Your task to perform on an android device: turn pop-ups off in chrome Image 0: 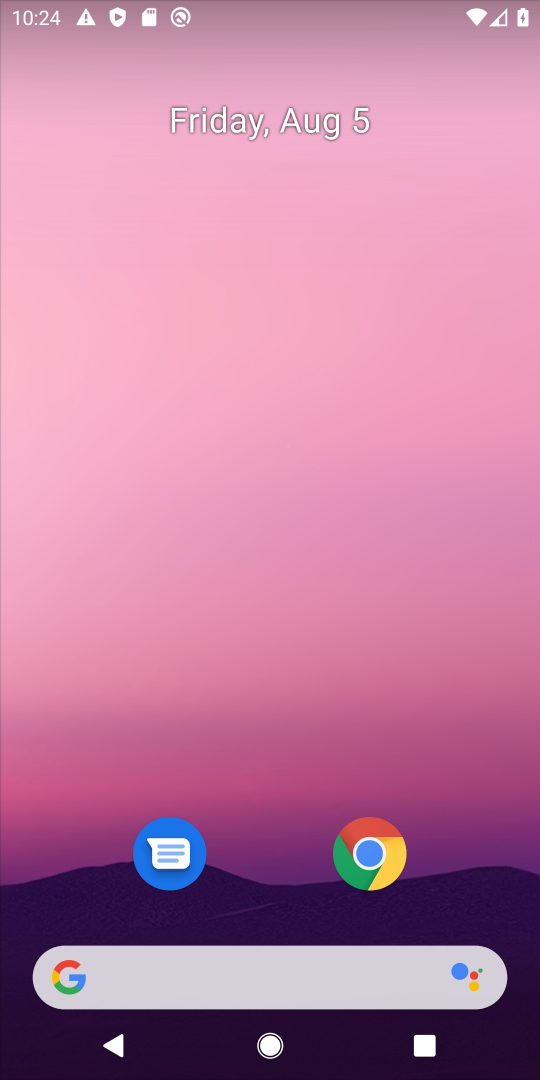
Step 0: click (370, 851)
Your task to perform on an android device: turn pop-ups off in chrome Image 1: 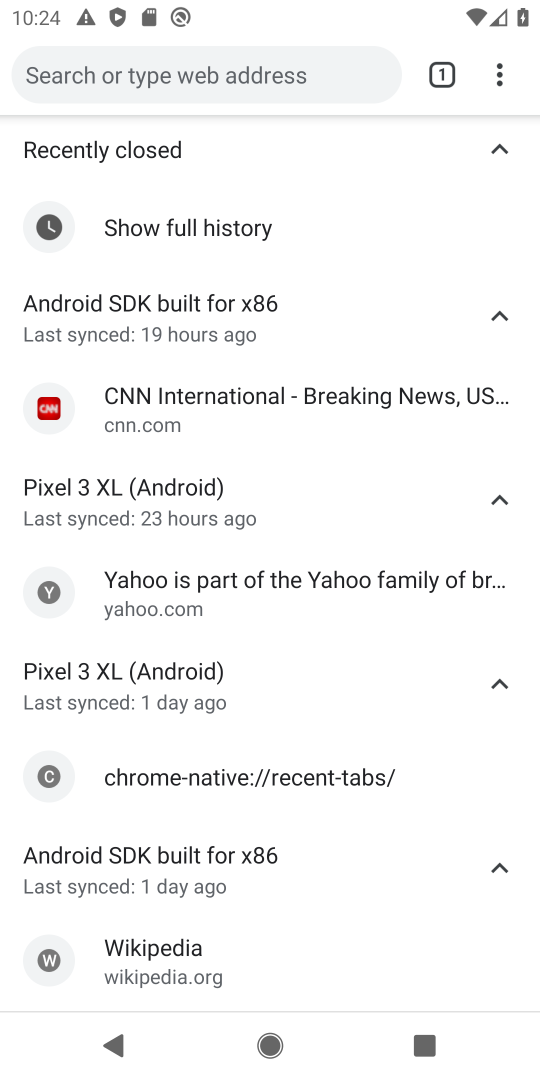
Step 1: click (498, 74)
Your task to perform on an android device: turn pop-ups off in chrome Image 2: 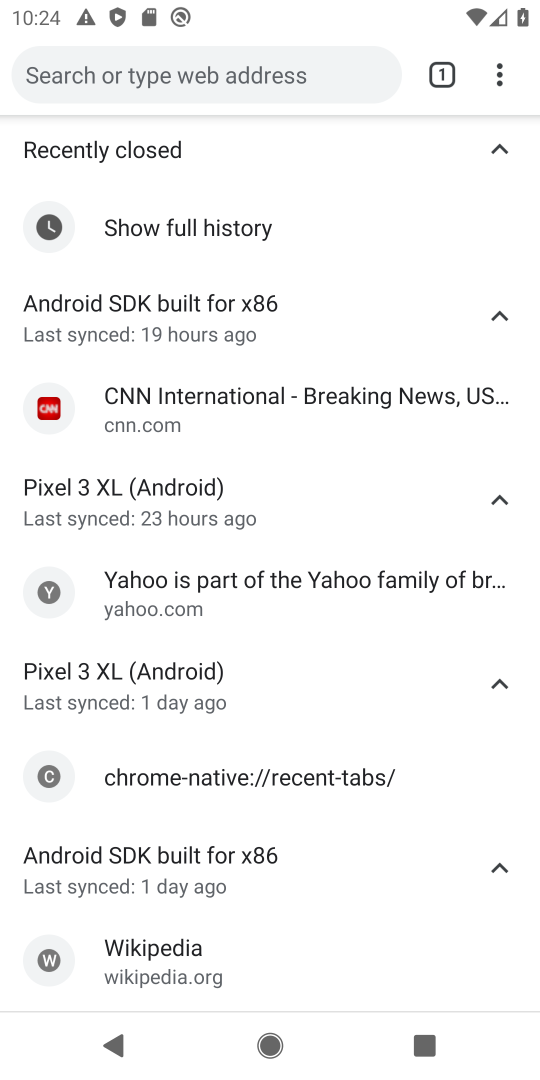
Step 2: click (505, 75)
Your task to perform on an android device: turn pop-ups off in chrome Image 3: 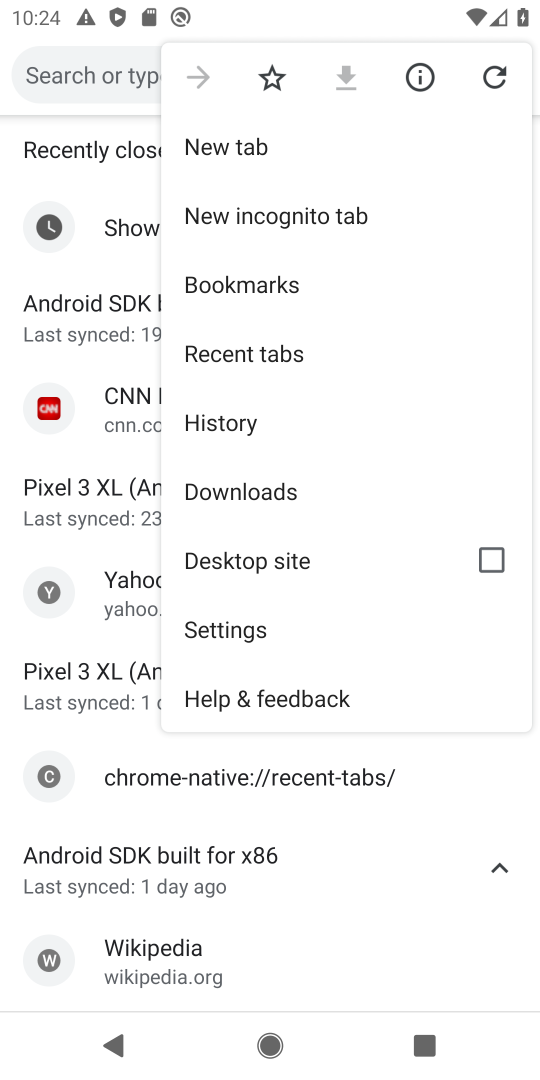
Step 3: click (292, 630)
Your task to perform on an android device: turn pop-ups off in chrome Image 4: 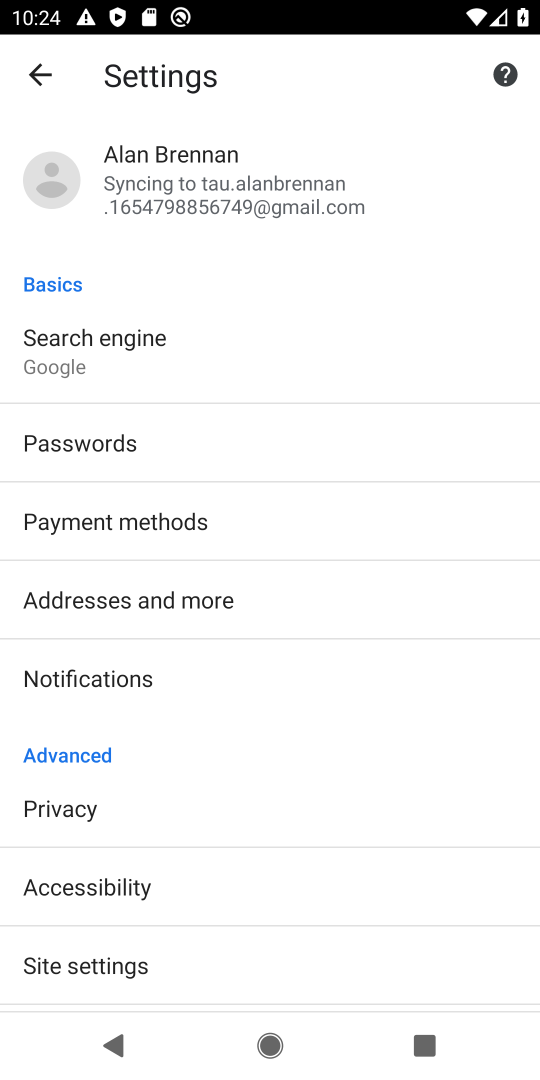
Step 4: click (200, 962)
Your task to perform on an android device: turn pop-ups off in chrome Image 5: 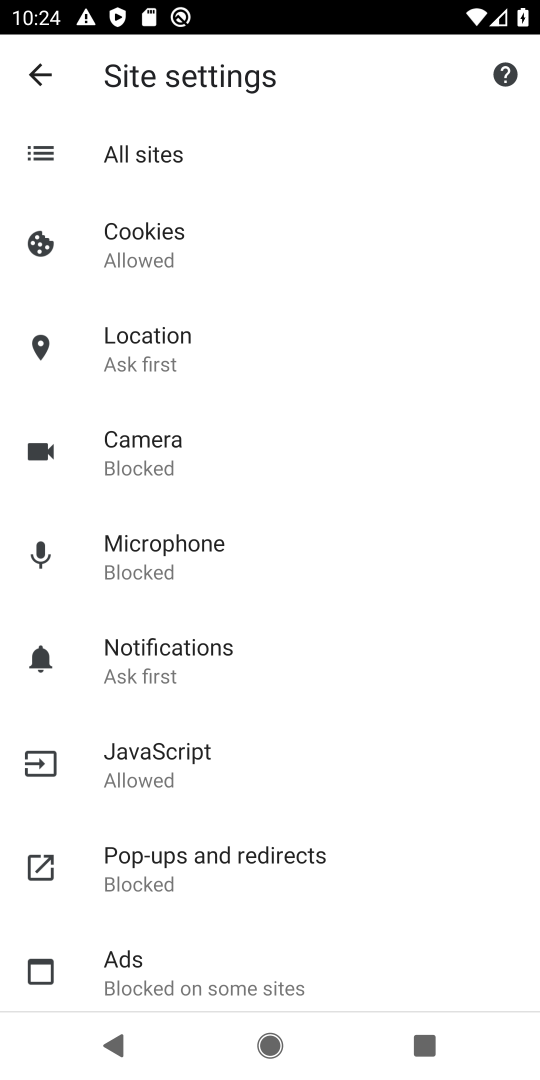
Step 5: click (243, 847)
Your task to perform on an android device: turn pop-ups off in chrome Image 6: 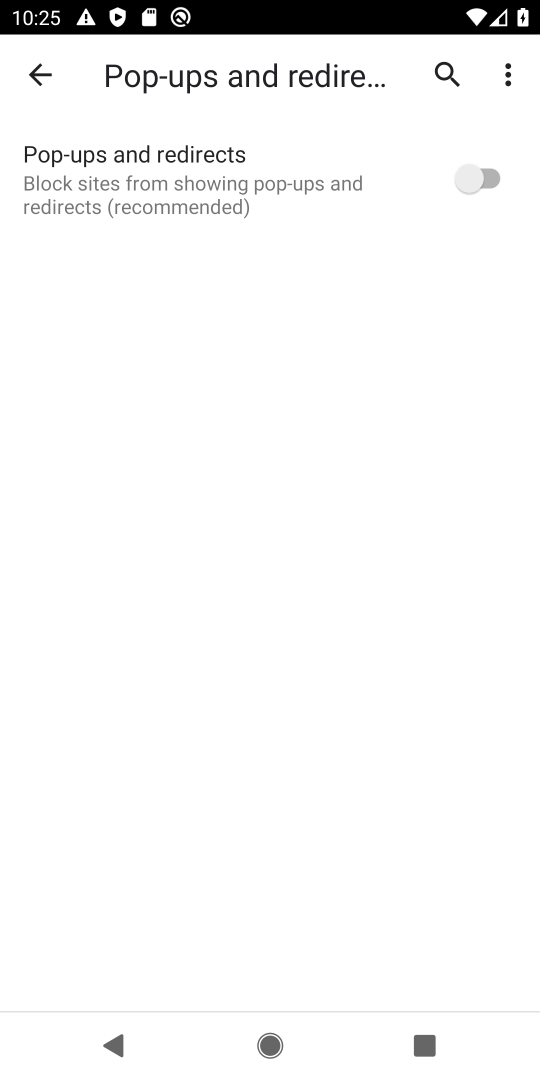
Step 6: task complete